Your task to perform on an android device: Open sound settings Image 0: 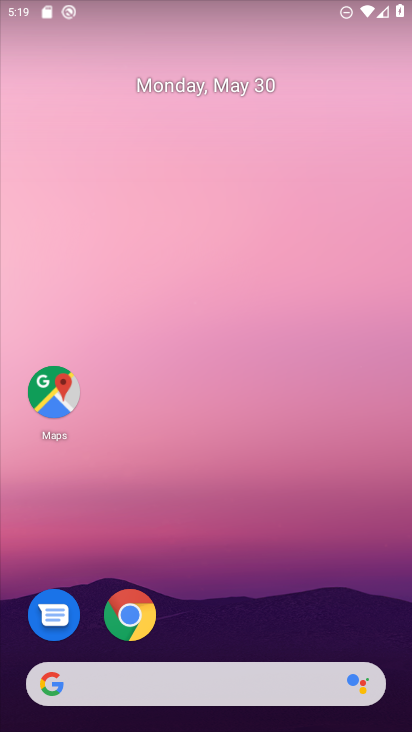
Step 0: drag from (178, 632) to (221, 186)
Your task to perform on an android device: Open sound settings Image 1: 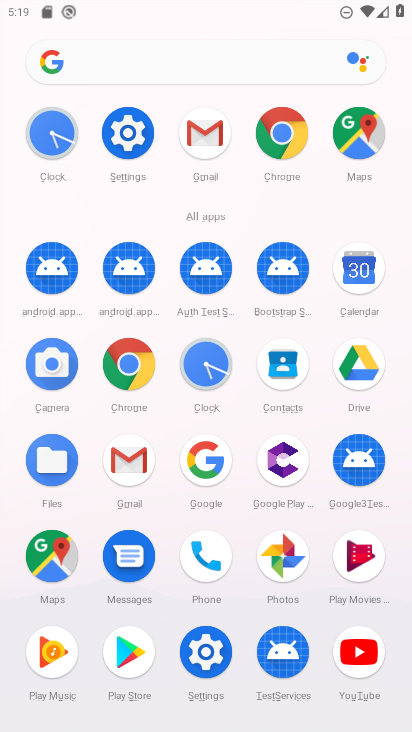
Step 1: click (131, 121)
Your task to perform on an android device: Open sound settings Image 2: 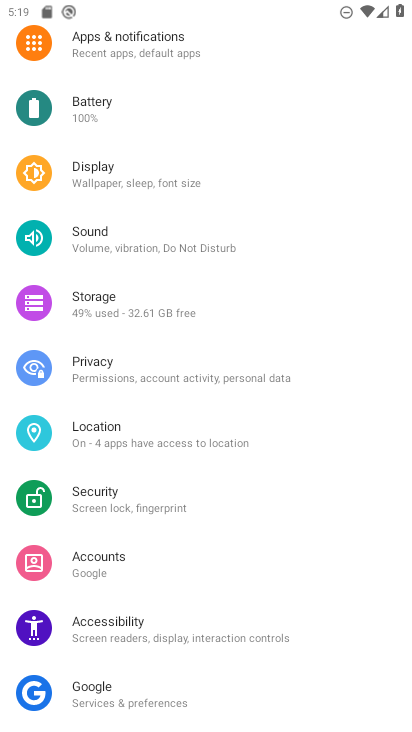
Step 2: click (125, 235)
Your task to perform on an android device: Open sound settings Image 3: 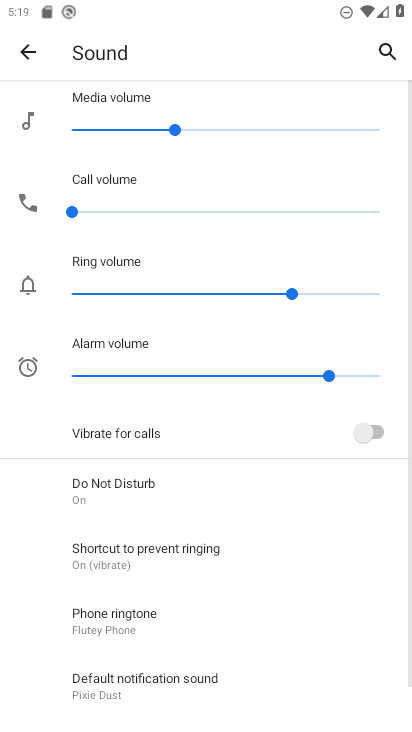
Step 3: task complete